Your task to perform on an android device: Check the news Image 0: 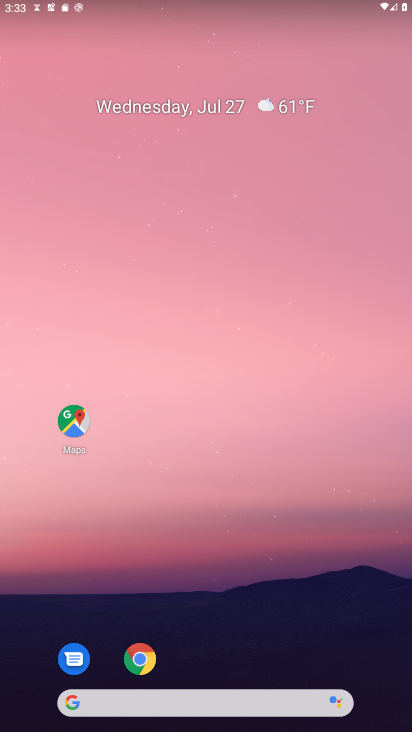
Step 0: click (143, 662)
Your task to perform on an android device: Check the news Image 1: 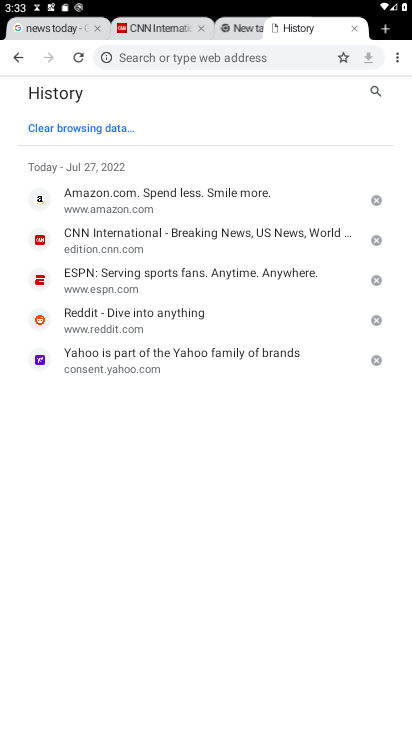
Step 1: click (207, 48)
Your task to perform on an android device: Check the news Image 2: 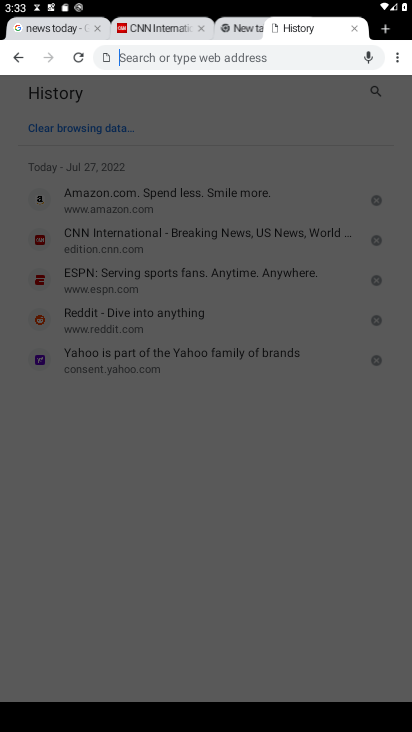
Step 2: type "news"
Your task to perform on an android device: Check the news Image 3: 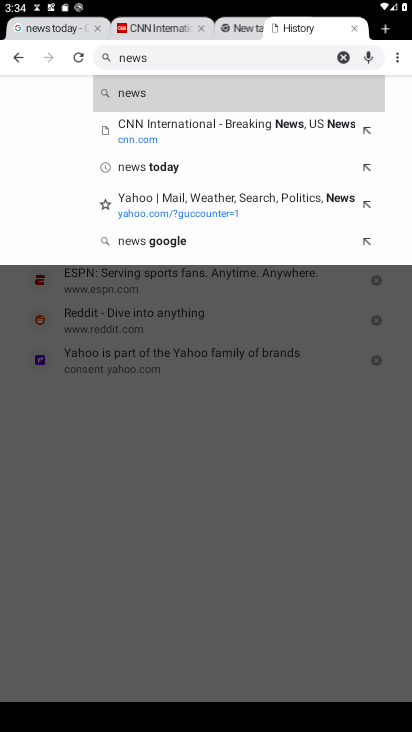
Step 3: click (165, 90)
Your task to perform on an android device: Check the news Image 4: 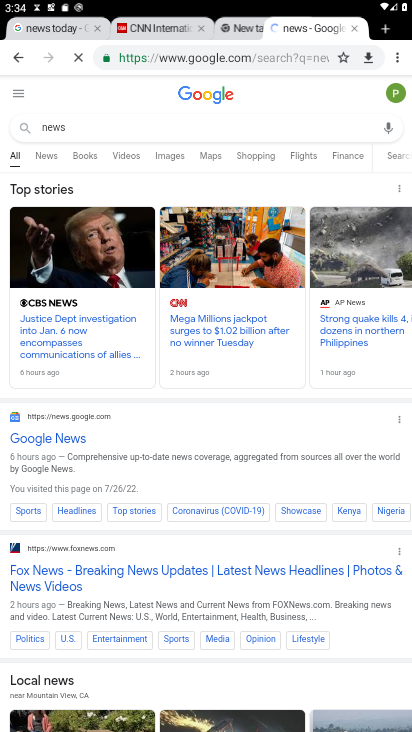
Step 4: task complete